Your task to perform on an android device: manage bookmarks in the chrome app Image 0: 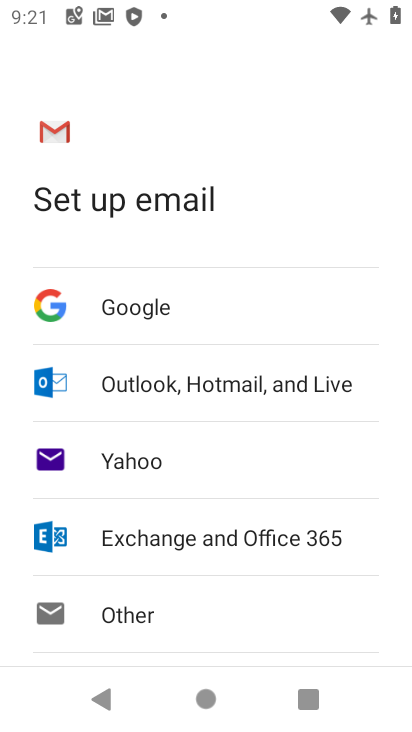
Step 0: press home button
Your task to perform on an android device: manage bookmarks in the chrome app Image 1: 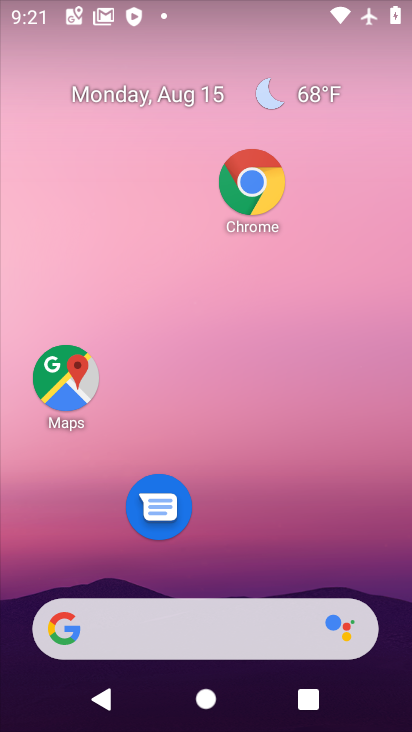
Step 1: click (251, 227)
Your task to perform on an android device: manage bookmarks in the chrome app Image 2: 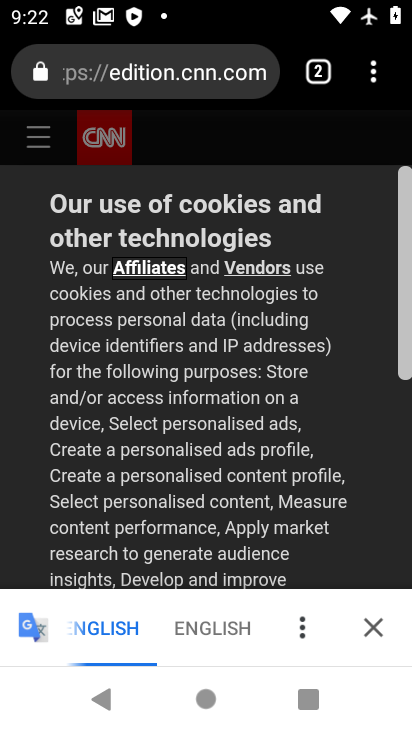
Step 2: click (387, 75)
Your task to perform on an android device: manage bookmarks in the chrome app Image 3: 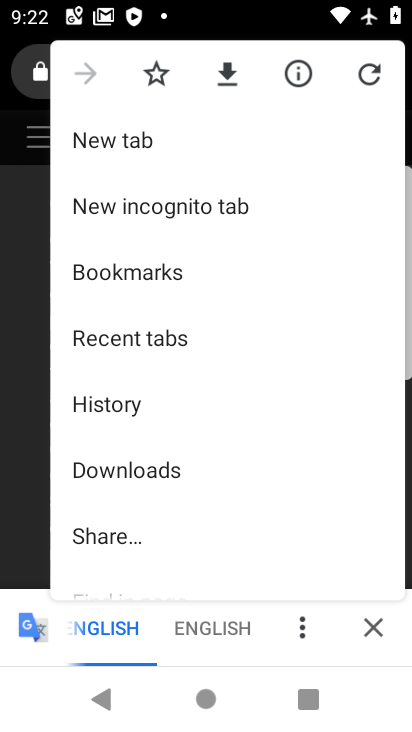
Step 3: click (223, 278)
Your task to perform on an android device: manage bookmarks in the chrome app Image 4: 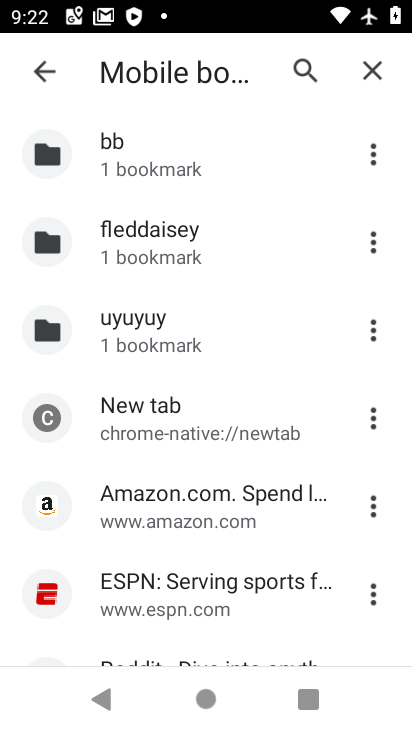
Step 4: task complete